Your task to perform on an android device: Open calendar and show me the third week of next month Image 0: 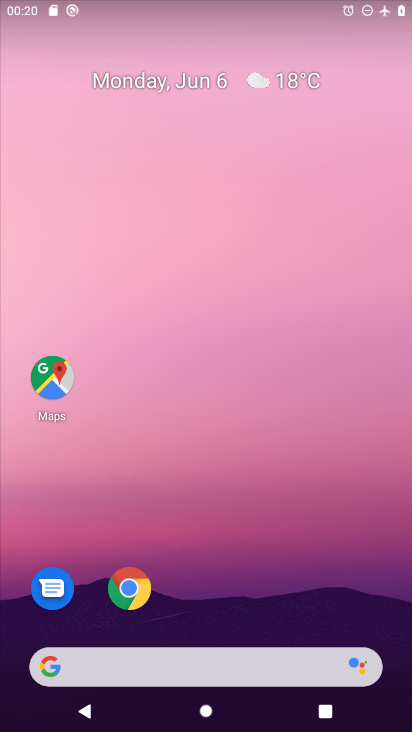
Step 0: drag from (338, 577) to (351, 201)
Your task to perform on an android device: Open calendar and show me the third week of next month Image 1: 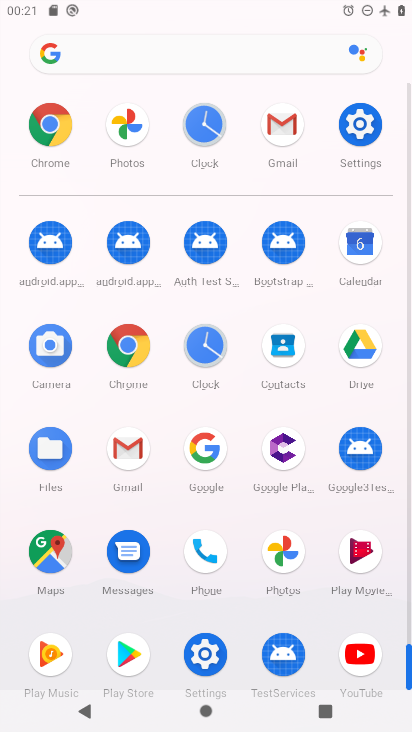
Step 1: click (355, 246)
Your task to perform on an android device: Open calendar and show me the third week of next month Image 2: 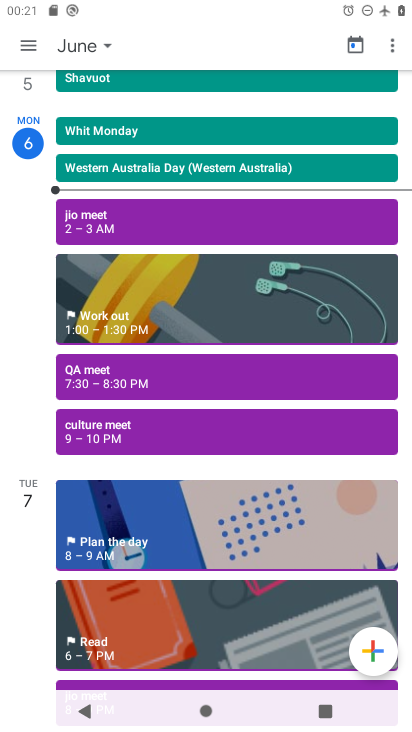
Step 2: click (112, 51)
Your task to perform on an android device: Open calendar and show me the third week of next month Image 3: 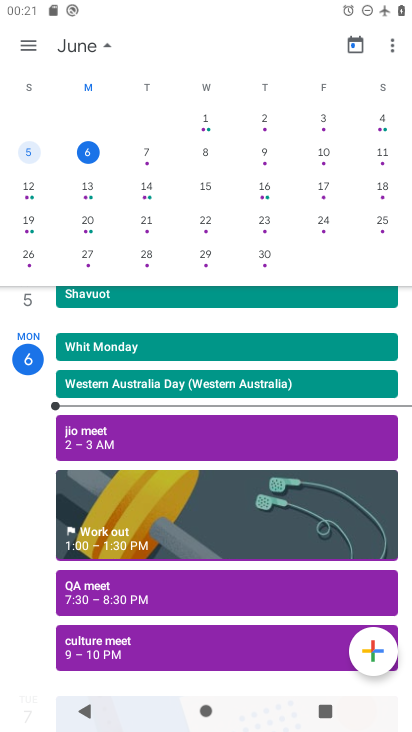
Step 3: drag from (379, 102) to (8, 102)
Your task to perform on an android device: Open calendar and show me the third week of next month Image 4: 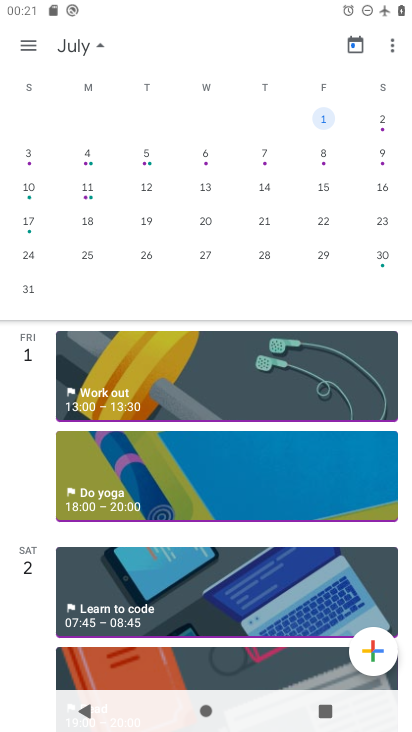
Step 4: click (90, 191)
Your task to perform on an android device: Open calendar and show me the third week of next month Image 5: 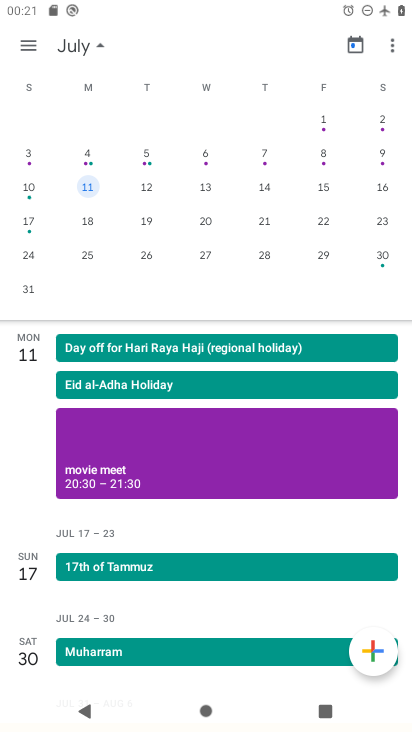
Step 5: click (88, 222)
Your task to perform on an android device: Open calendar and show me the third week of next month Image 6: 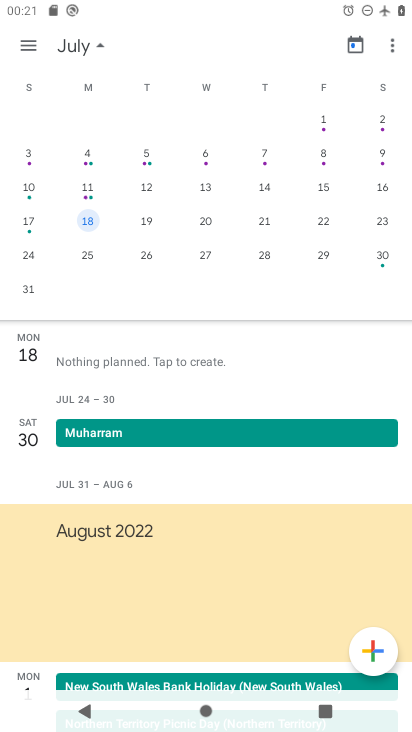
Step 6: task complete